Your task to perform on an android device: toggle translation in the chrome app Image 0: 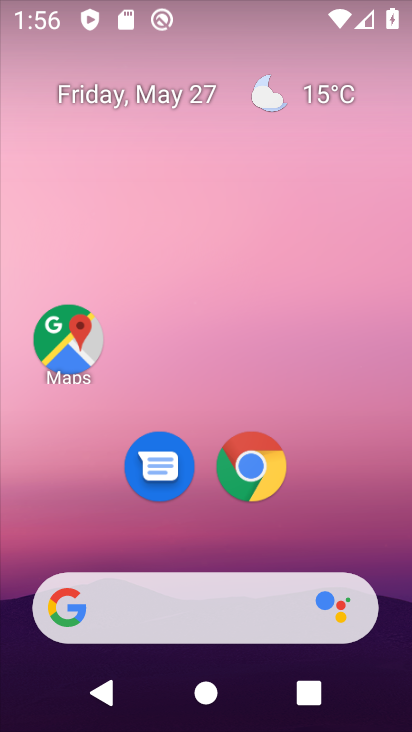
Step 0: drag from (342, 546) to (298, 187)
Your task to perform on an android device: toggle translation in the chrome app Image 1: 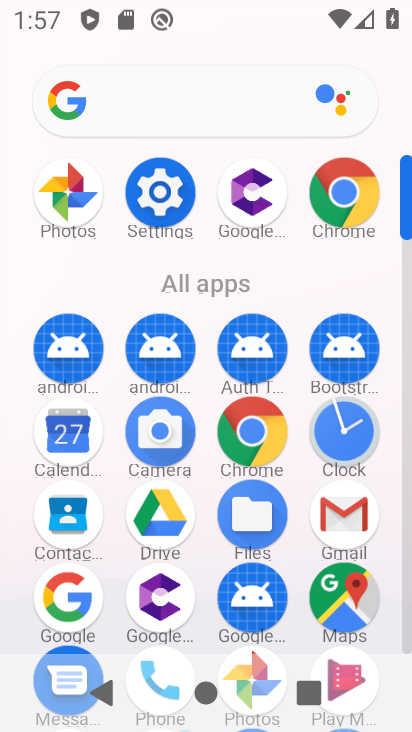
Step 1: click (250, 427)
Your task to perform on an android device: toggle translation in the chrome app Image 2: 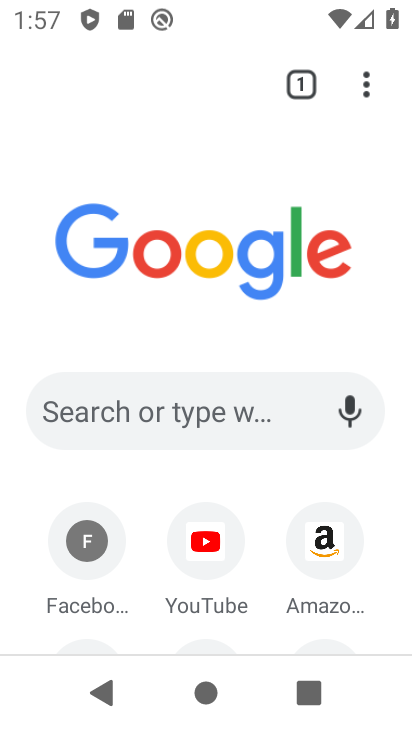
Step 2: drag from (274, 527) to (260, 304)
Your task to perform on an android device: toggle translation in the chrome app Image 3: 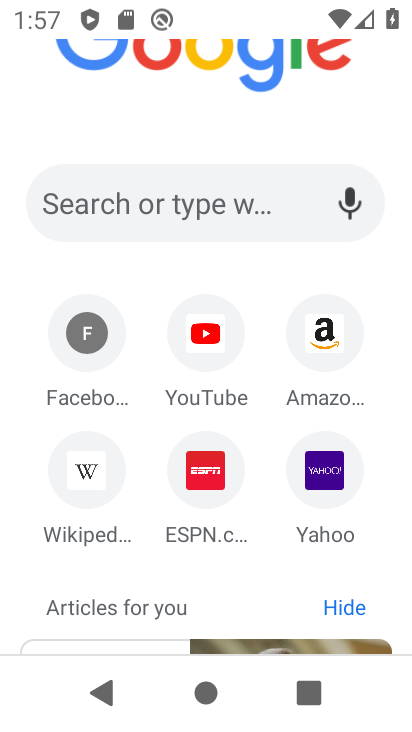
Step 3: drag from (295, 119) to (304, 454)
Your task to perform on an android device: toggle translation in the chrome app Image 4: 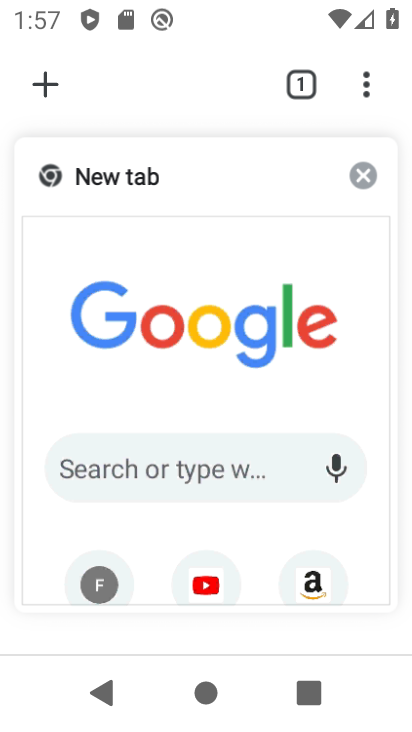
Step 4: drag from (373, 99) to (242, 338)
Your task to perform on an android device: toggle translation in the chrome app Image 5: 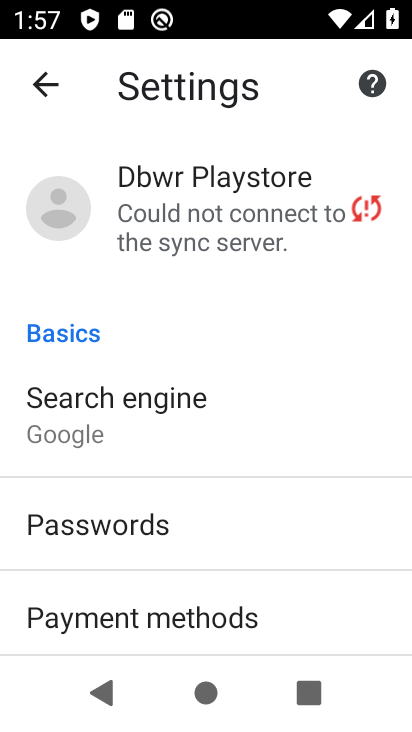
Step 5: drag from (269, 582) to (247, 209)
Your task to perform on an android device: toggle translation in the chrome app Image 6: 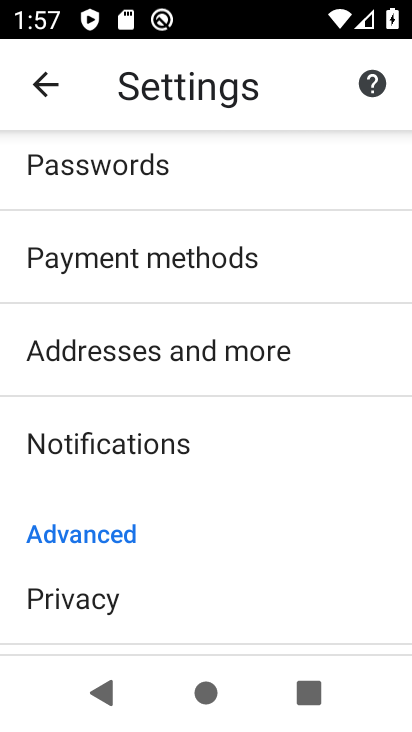
Step 6: drag from (217, 565) to (219, 268)
Your task to perform on an android device: toggle translation in the chrome app Image 7: 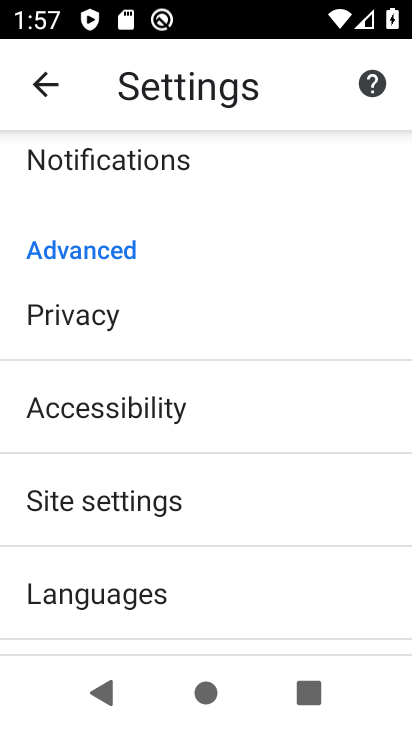
Step 7: drag from (204, 584) to (205, 273)
Your task to perform on an android device: toggle translation in the chrome app Image 8: 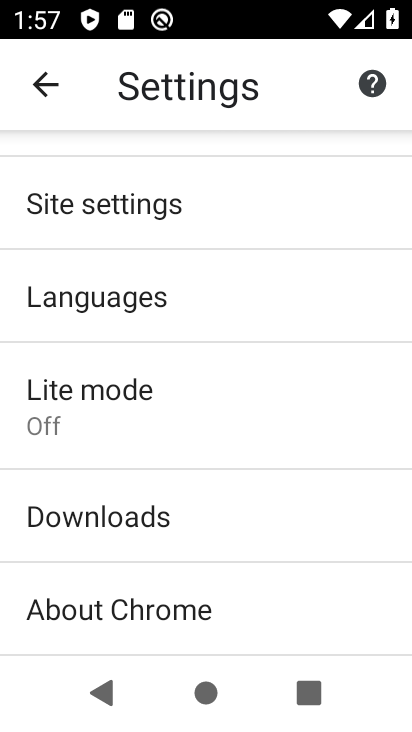
Step 8: click (164, 282)
Your task to perform on an android device: toggle translation in the chrome app Image 9: 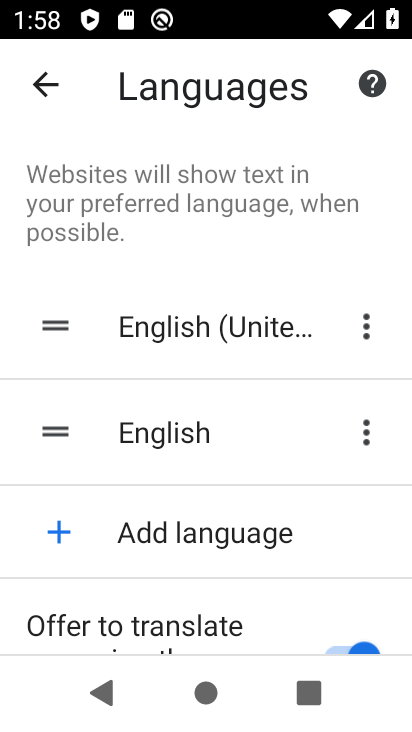
Step 9: drag from (267, 573) to (298, 312)
Your task to perform on an android device: toggle translation in the chrome app Image 10: 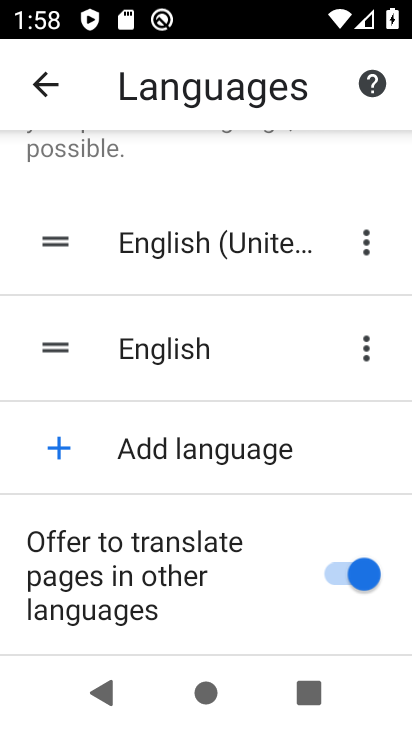
Step 10: click (345, 580)
Your task to perform on an android device: toggle translation in the chrome app Image 11: 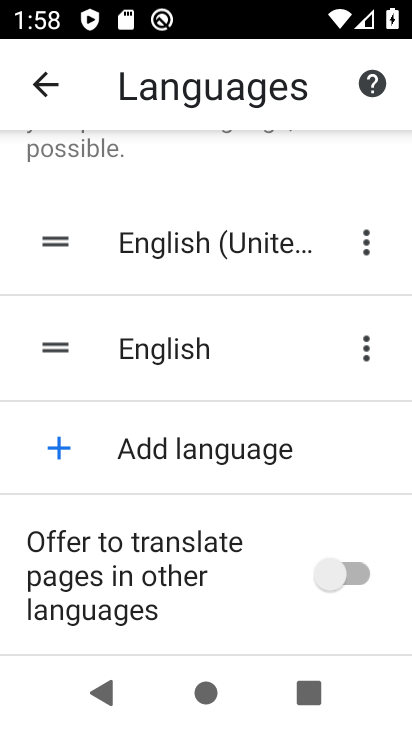
Step 11: task complete